Your task to perform on an android device: Open Reddit.com Image 0: 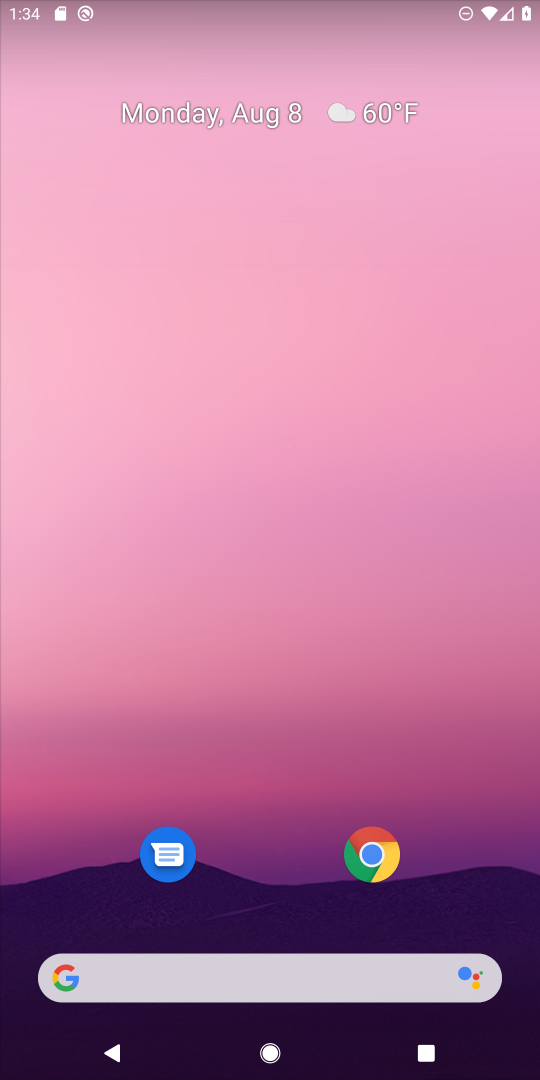
Step 0: press home button
Your task to perform on an android device: Open Reddit.com Image 1: 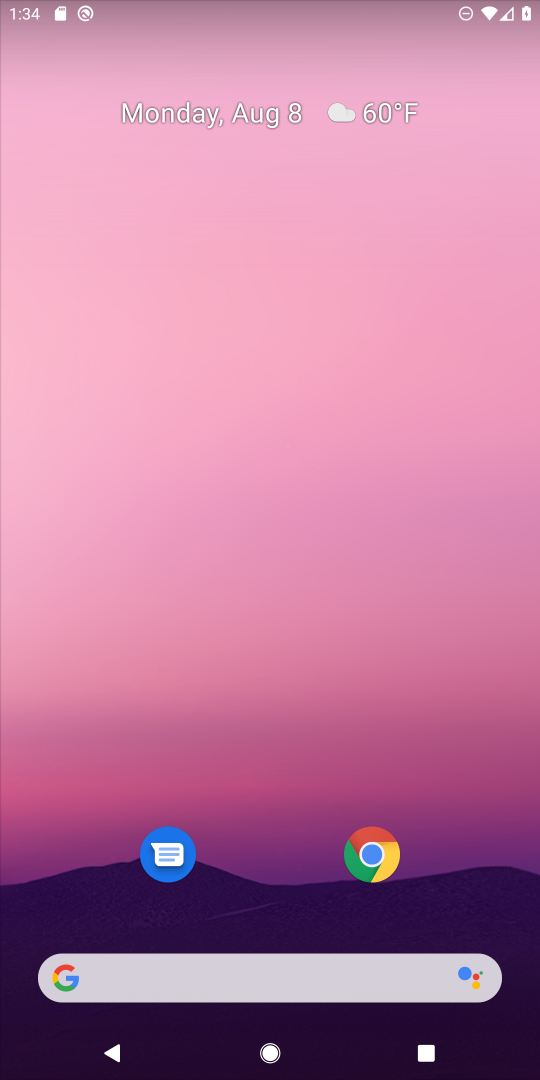
Step 1: click (60, 976)
Your task to perform on an android device: Open Reddit.com Image 2: 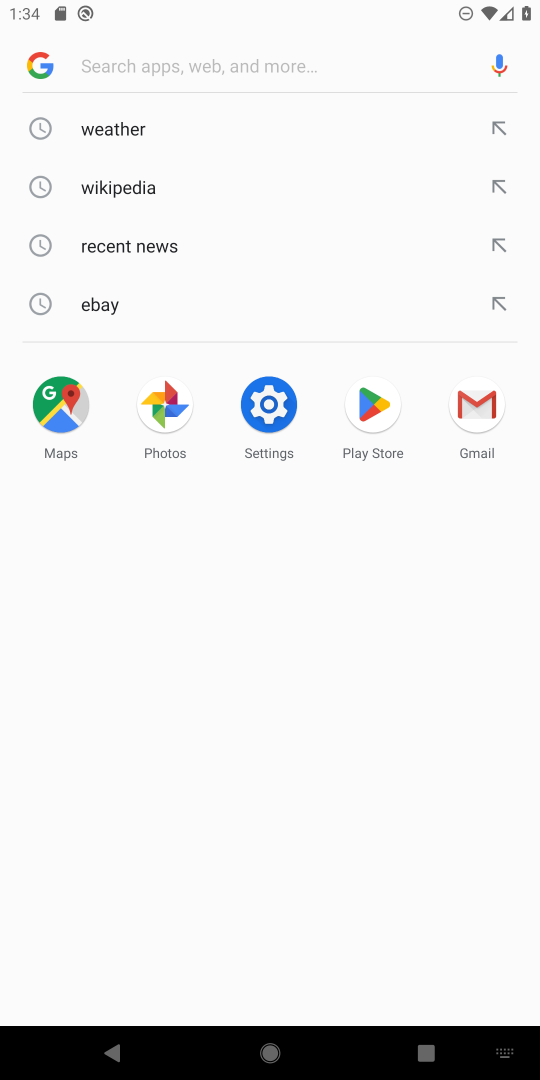
Step 2: type "Reddit.com"
Your task to perform on an android device: Open Reddit.com Image 3: 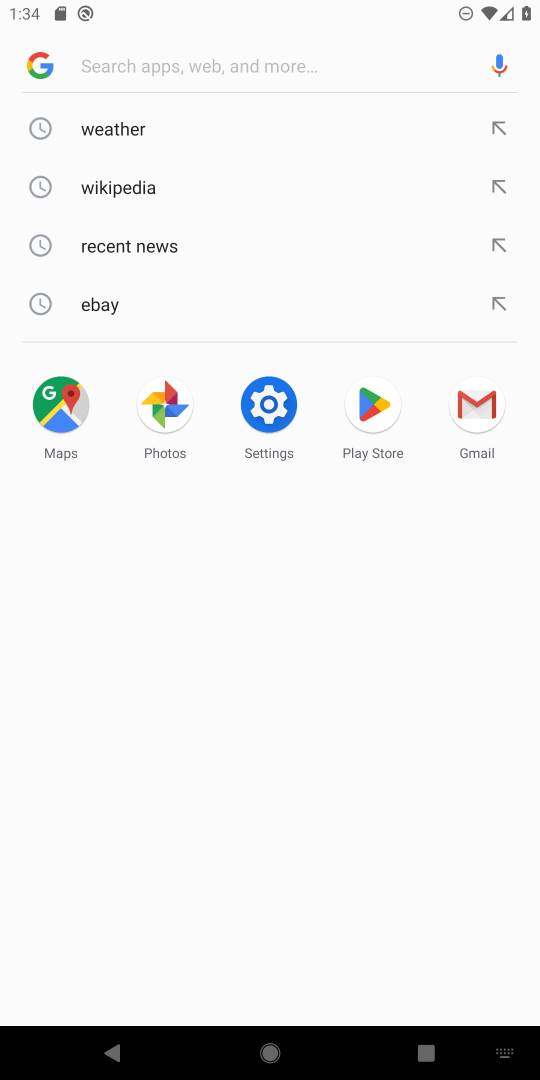
Step 3: click (132, 57)
Your task to perform on an android device: Open Reddit.com Image 4: 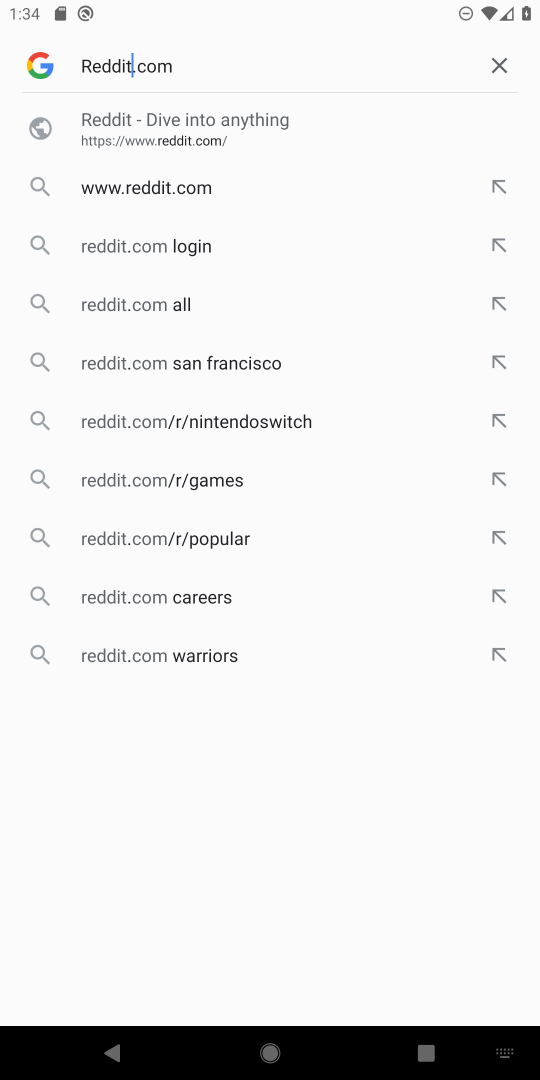
Step 4: press enter
Your task to perform on an android device: Open Reddit.com Image 5: 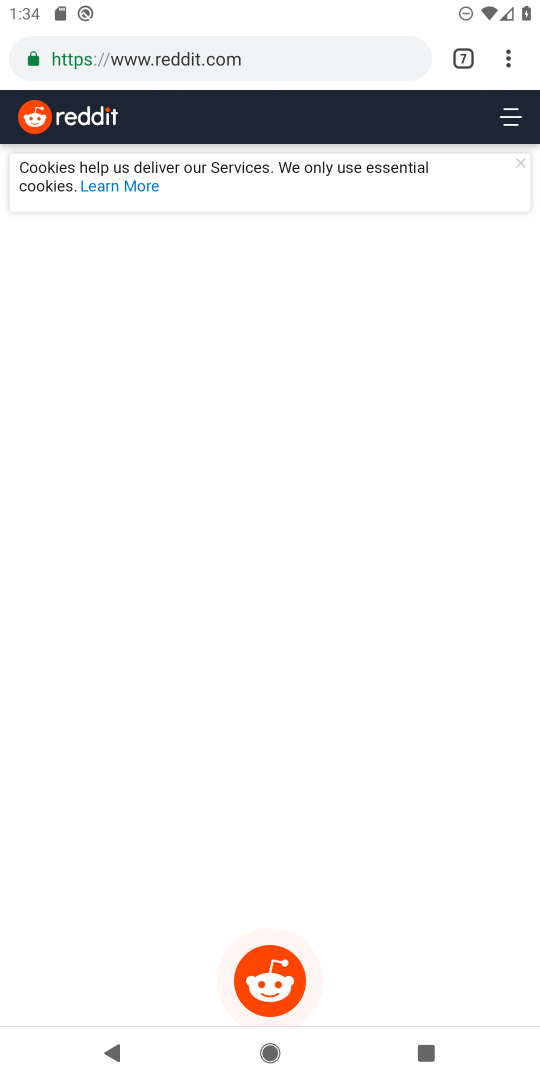
Step 5: task complete